Your task to perform on an android device: Go to Google maps Image 0: 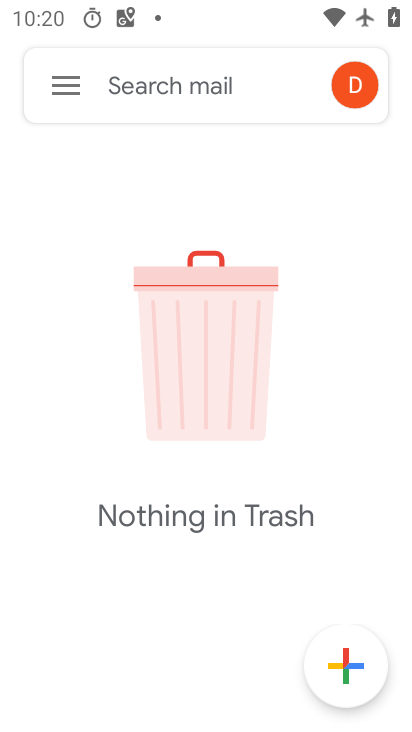
Step 0: press home button
Your task to perform on an android device: Go to Google maps Image 1: 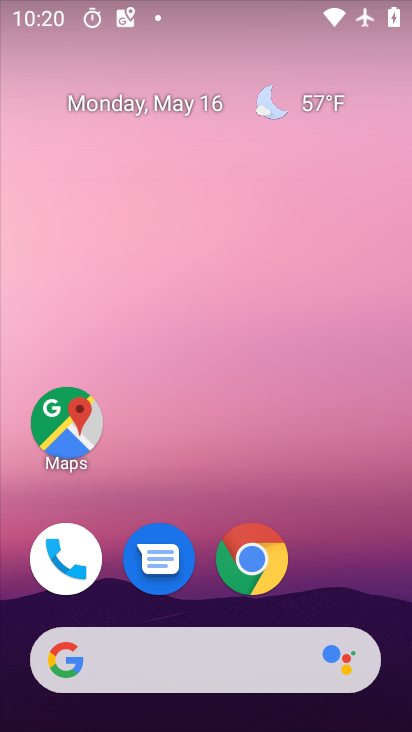
Step 1: click (55, 417)
Your task to perform on an android device: Go to Google maps Image 2: 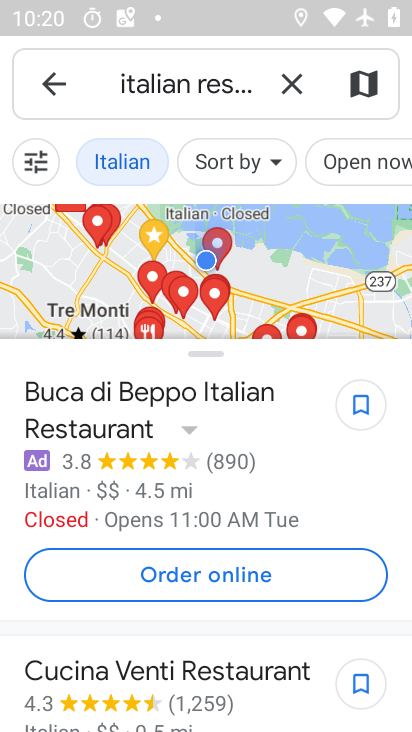
Step 2: task complete